Your task to perform on an android device: allow notifications from all sites in the chrome app Image 0: 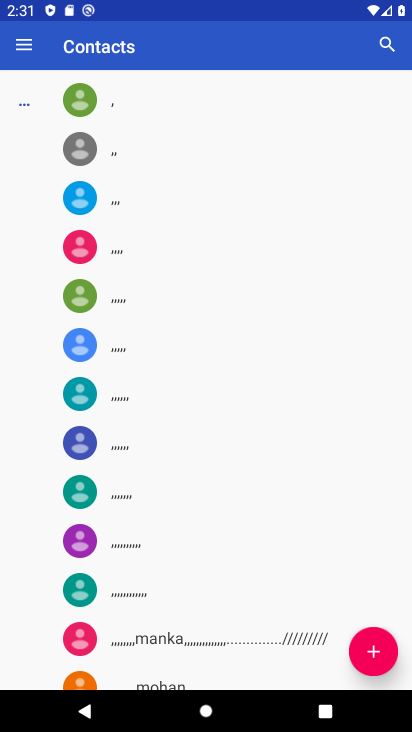
Step 0: press home button
Your task to perform on an android device: allow notifications from all sites in the chrome app Image 1: 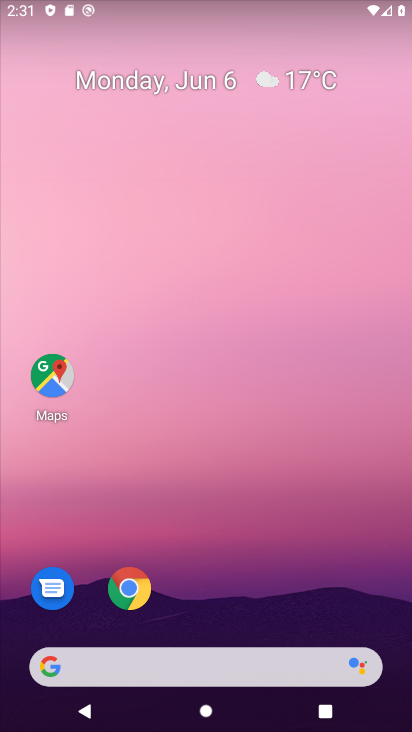
Step 1: click (131, 590)
Your task to perform on an android device: allow notifications from all sites in the chrome app Image 2: 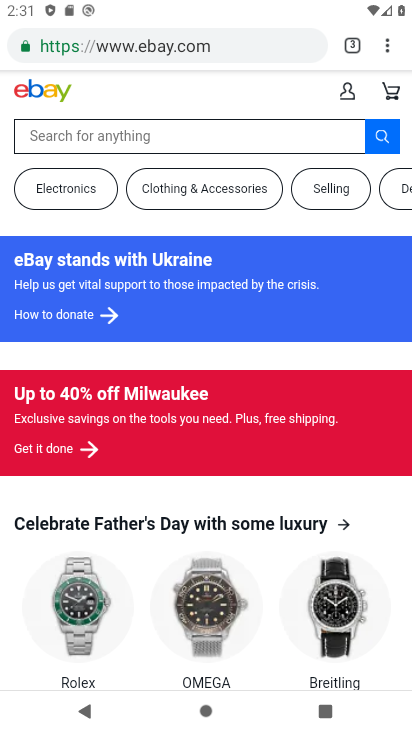
Step 2: drag from (388, 42) to (240, 550)
Your task to perform on an android device: allow notifications from all sites in the chrome app Image 3: 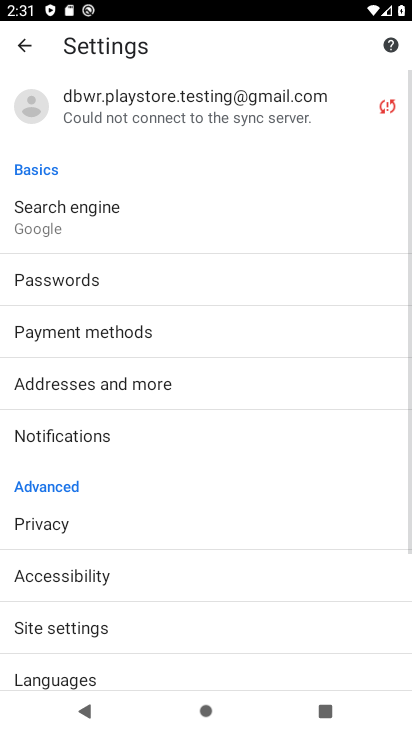
Step 3: drag from (163, 589) to (246, 192)
Your task to perform on an android device: allow notifications from all sites in the chrome app Image 4: 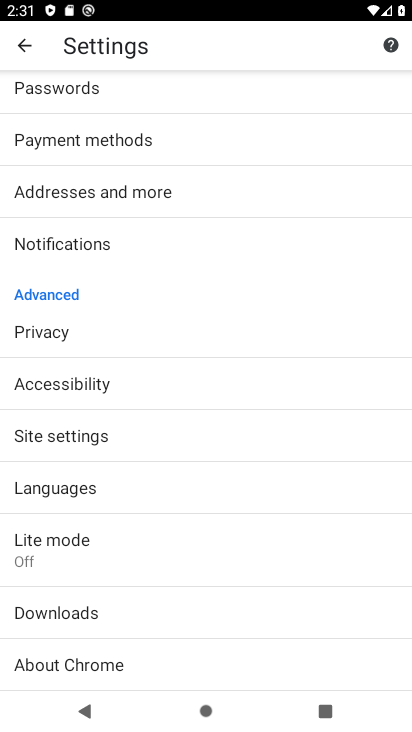
Step 4: click (179, 437)
Your task to perform on an android device: allow notifications from all sites in the chrome app Image 5: 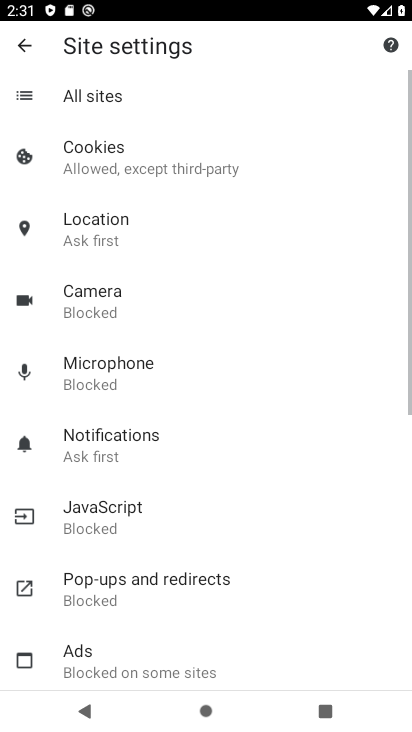
Step 5: click (120, 446)
Your task to perform on an android device: allow notifications from all sites in the chrome app Image 6: 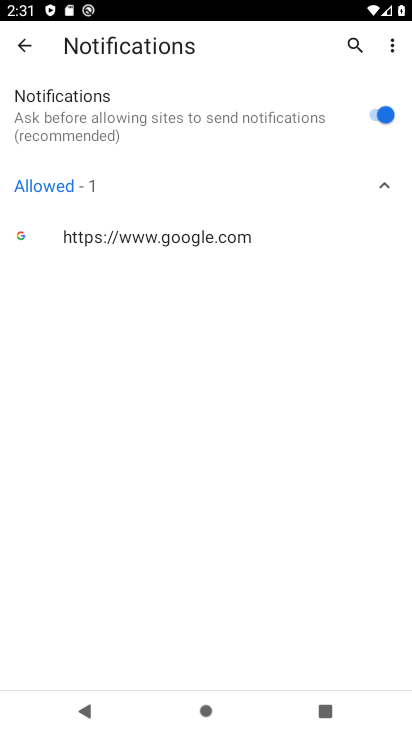
Step 6: task complete